Your task to perform on an android device: turn on improve location accuracy Image 0: 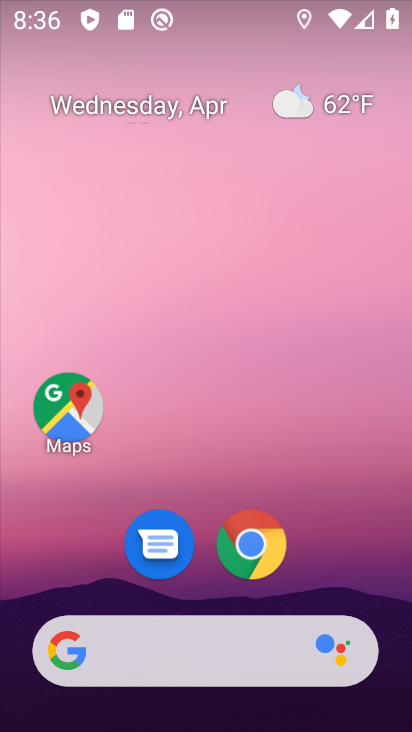
Step 0: drag from (338, 491) to (152, 210)
Your task to perform on an android device: turn on improve location accuracy Image 1: 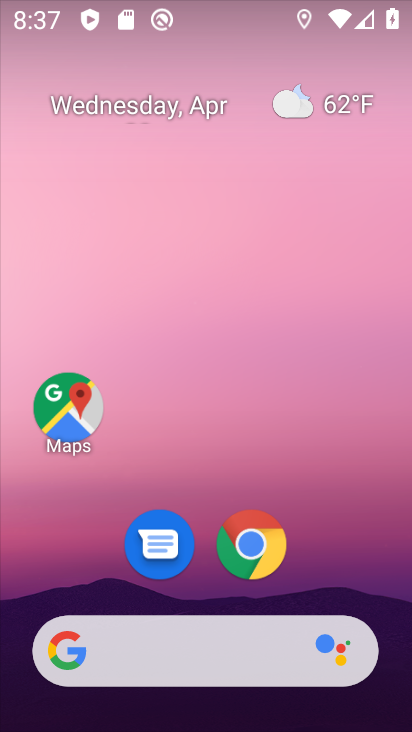
Step 1: drag from (316, 551) to (60, 83)
Your task to perform on an android device: turn on improve location accuracy Image 2: 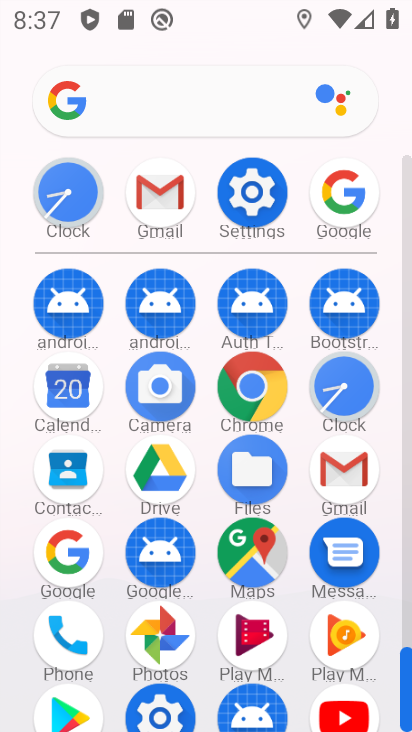
Step 2: click (266, 192)
Your task to perform on an android device: turn on improve location accuracy Image 3: 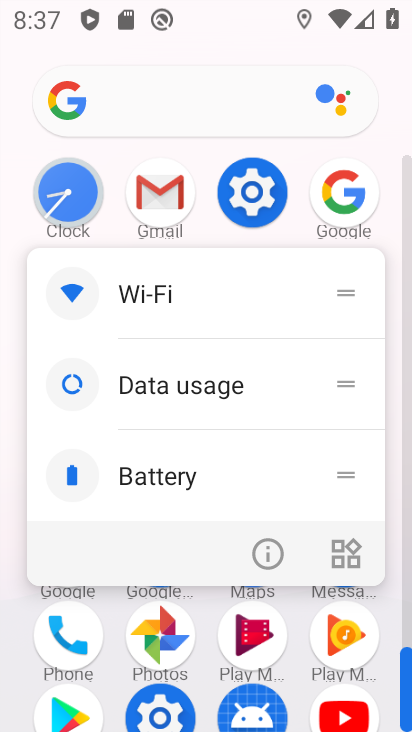
Step 3: click (258, 178)
Your task to perform on an android device: turn on improve location accuracy Image 4: 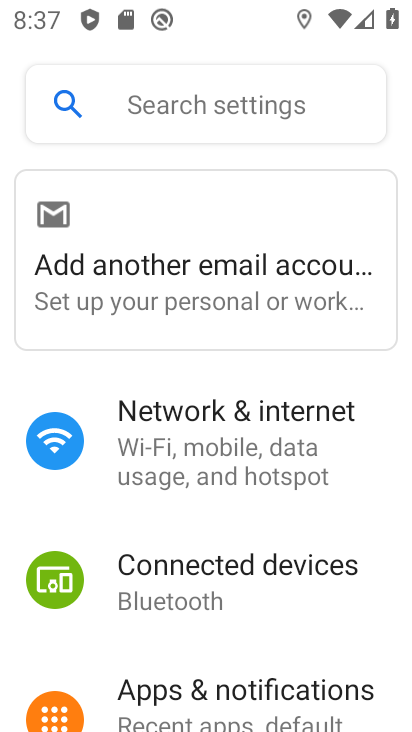
Step 4: drag from (310, 587) to (286, 184)
Your task to perform on an android device: turn on improve location accuracy Image 5: 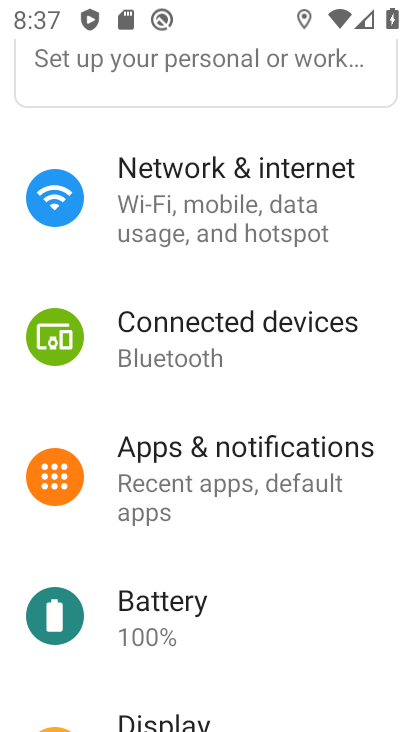
Step 5: drag from (264, 656) to (193, 252)
Your task to perform on an android device: turn on improve location accuracy Image 6: 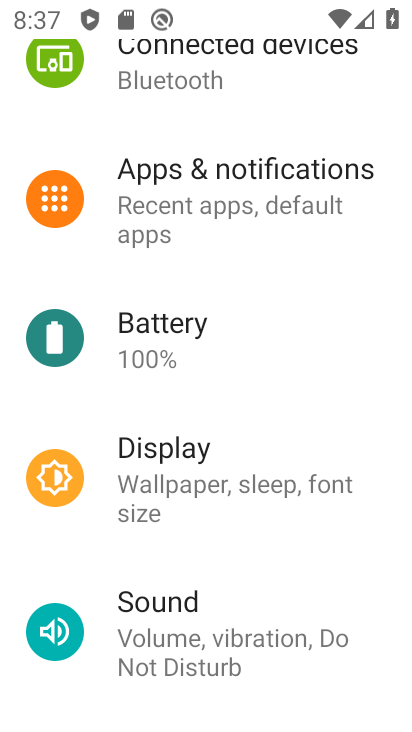
Step 6: drag from (280, 689) to (307, 323)
Your task to perform on an android device: turn on improve location accuracy Image 7: 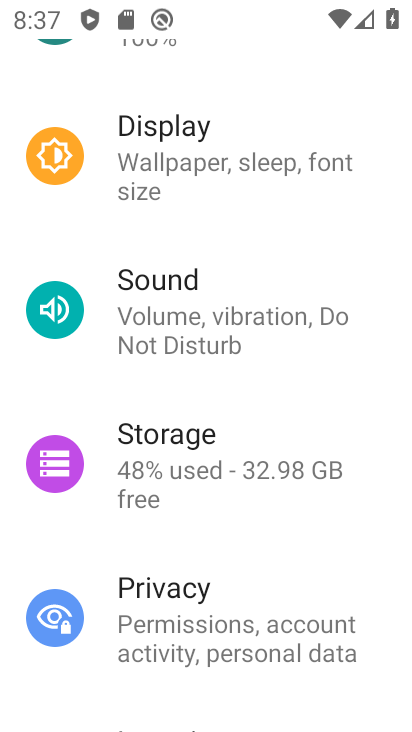
Step 7: drag from (263, 619) to (271, 327)
Your task to perform on an android device: turn on improve location accuracy Image 8: 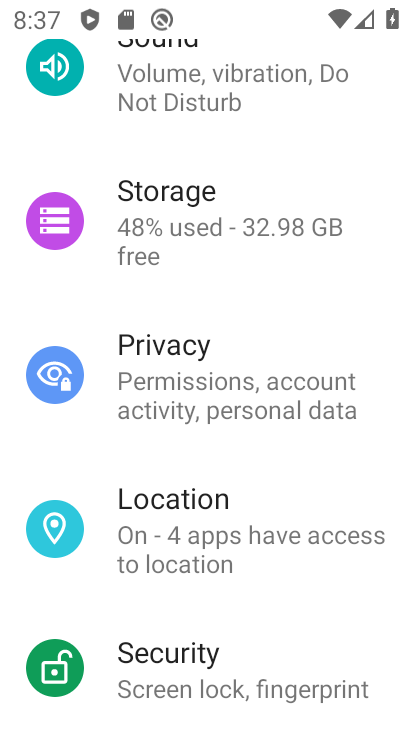
Step 8: click (175, 534)
Your task to perform on an android device: turn on improve location accuracy Image 9: 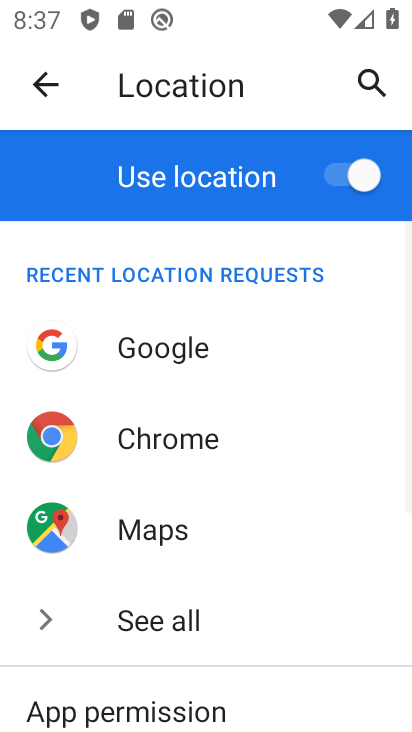
Step 9: drag from (226, 683) to (246, 337)
Your task to perform on an android device: turn on improve location accuracy Image 10: 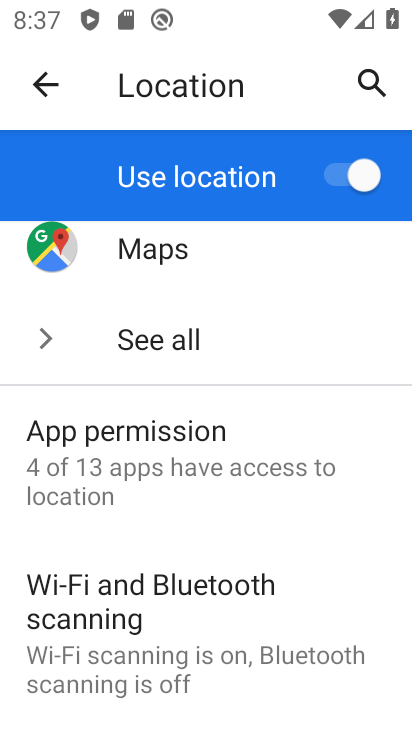
Step 10: drag from (187, 688) to (228, 297)
Your task to perform on an android device: turn on improve location accuracy Image 11: 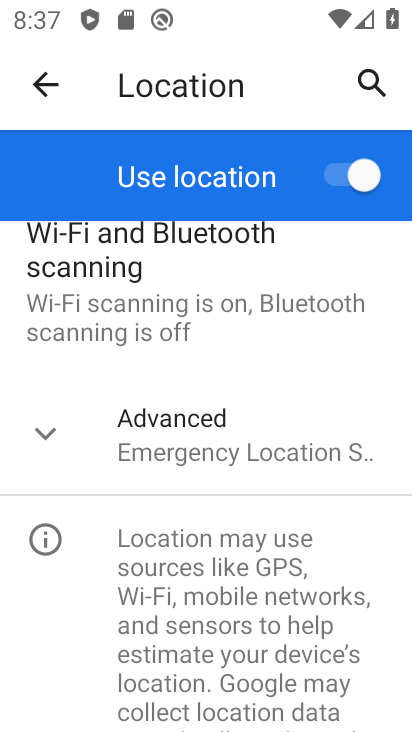
Step 11: click (183, 432)
Your task to perform on an android device: turn on improve location accuracy Image 12: 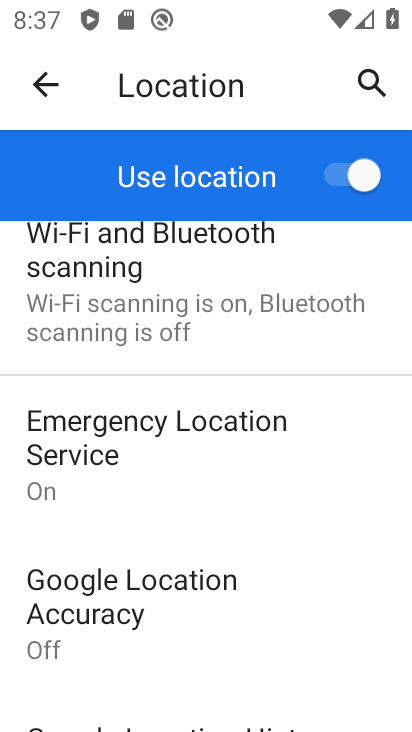
Step 12: click (112, 619)
Your task to perform on an android device: turn on improve location accuracy Image 13: 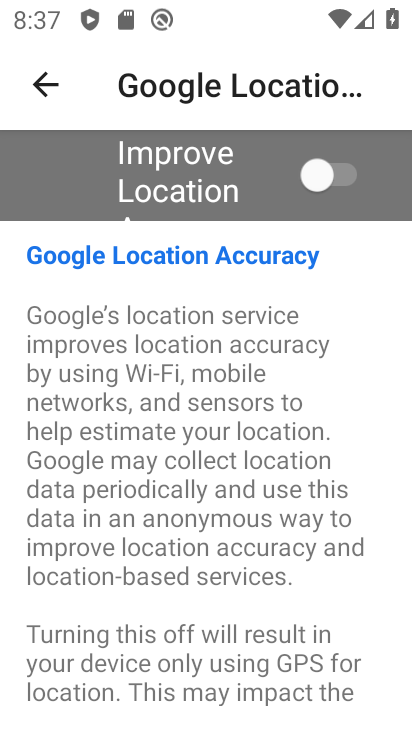
Step 13: click (338, 186)
Your task to perform on an android device: turn on improve location accuracy Image 14: 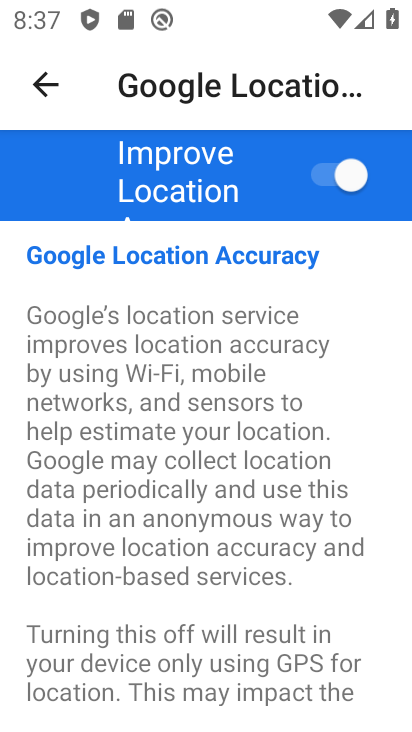
Step 14: task complete